Your task to perform on an android device: allow cookies in the chrome app Image 0: 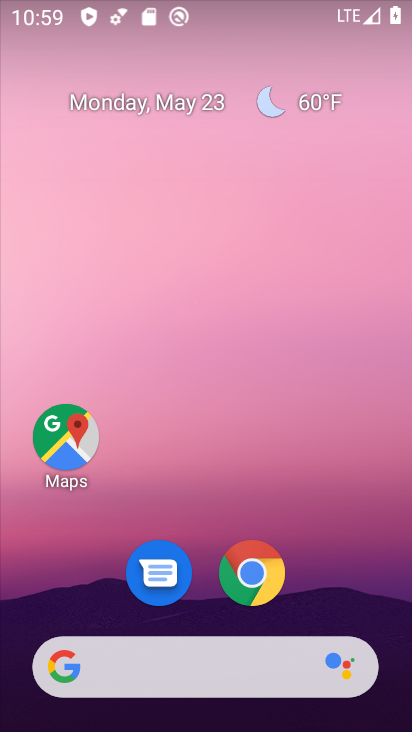
Step 0: click (243, 567)
Your task to perform on an android device: allow cookies in the chrome app Image 1: 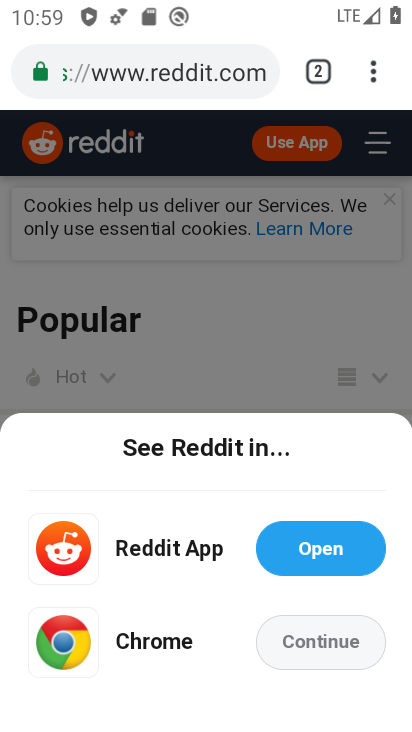
Step 1: click (371, 74)
Your task to perform on an android device: allow cookies in the chrome app Image 2: 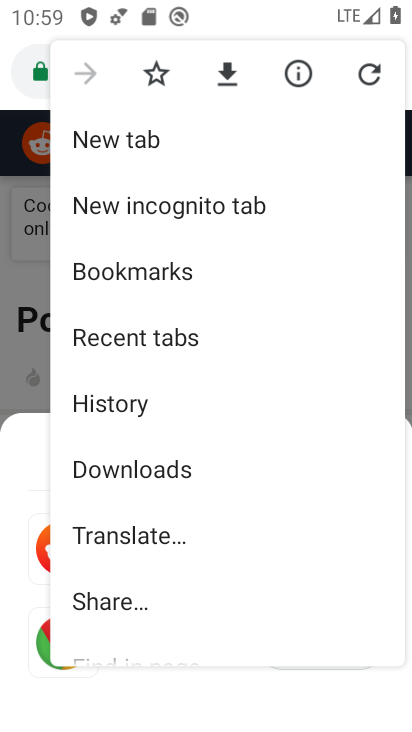
Step 2: drag from (130, 586) to (187, 148)
Your task to perform on an android device: allow cookies in the chrome app Image 3: 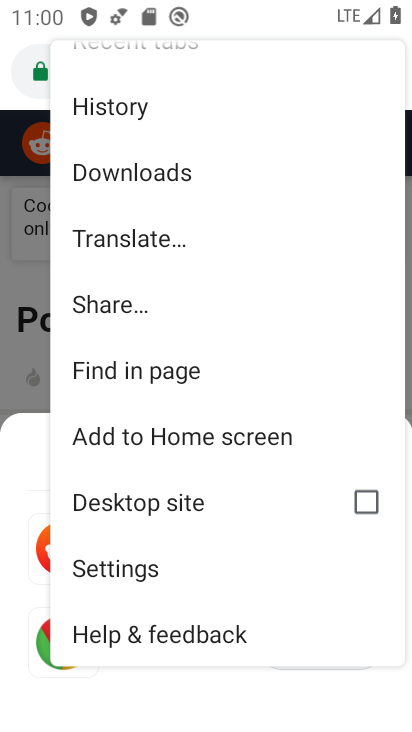
Step 3: click (116, 565)
Your task to perform on an android device: allow cookies in the chrome app Image 4: 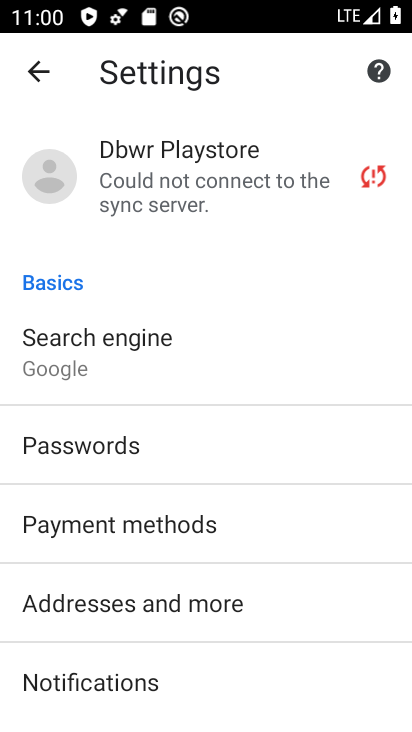
Step 4: drag from (95, 616) to (101, 275)
Your task to perform on an android device: allow cookies in the chrome app Image 5: 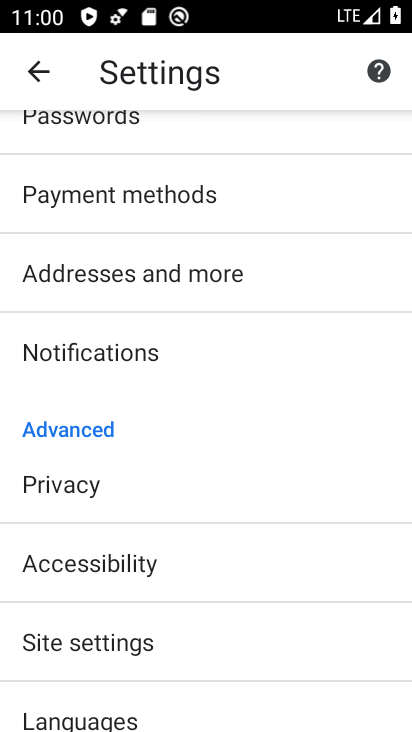
Step 5: click (99, 643)
Your task to perform on an android device: allow cookies in the chrome app Image 6: 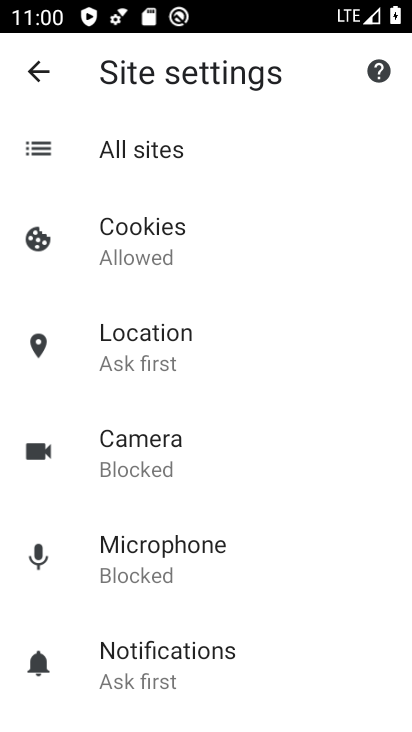
Step 6: click (199, 241)
Your task to perform on an android device: allow cookies in the chrome app Image 7: 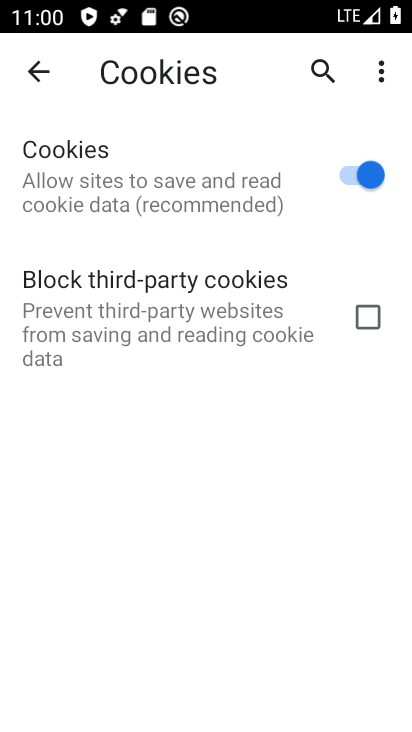
Step 7: task complete